Your task to perform on an android device: open app "Pinterest" (install if not already installed), go to login, and select forgot password Image 0: 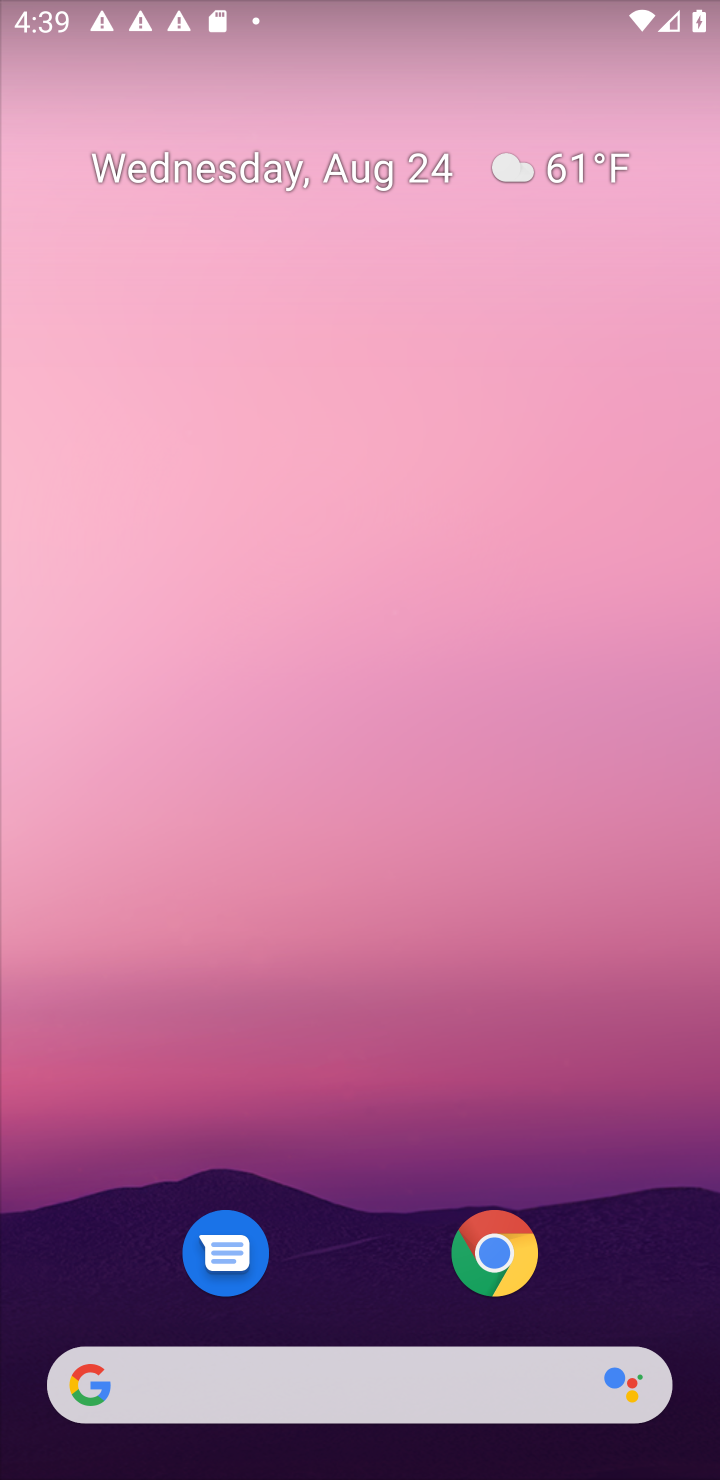
Step 0: drag from (398, 1079) to (496, 152)
Your task to perform on an android device: open app "Pinterest" (install if not already installed), go to login, and select forgot password Image 1: 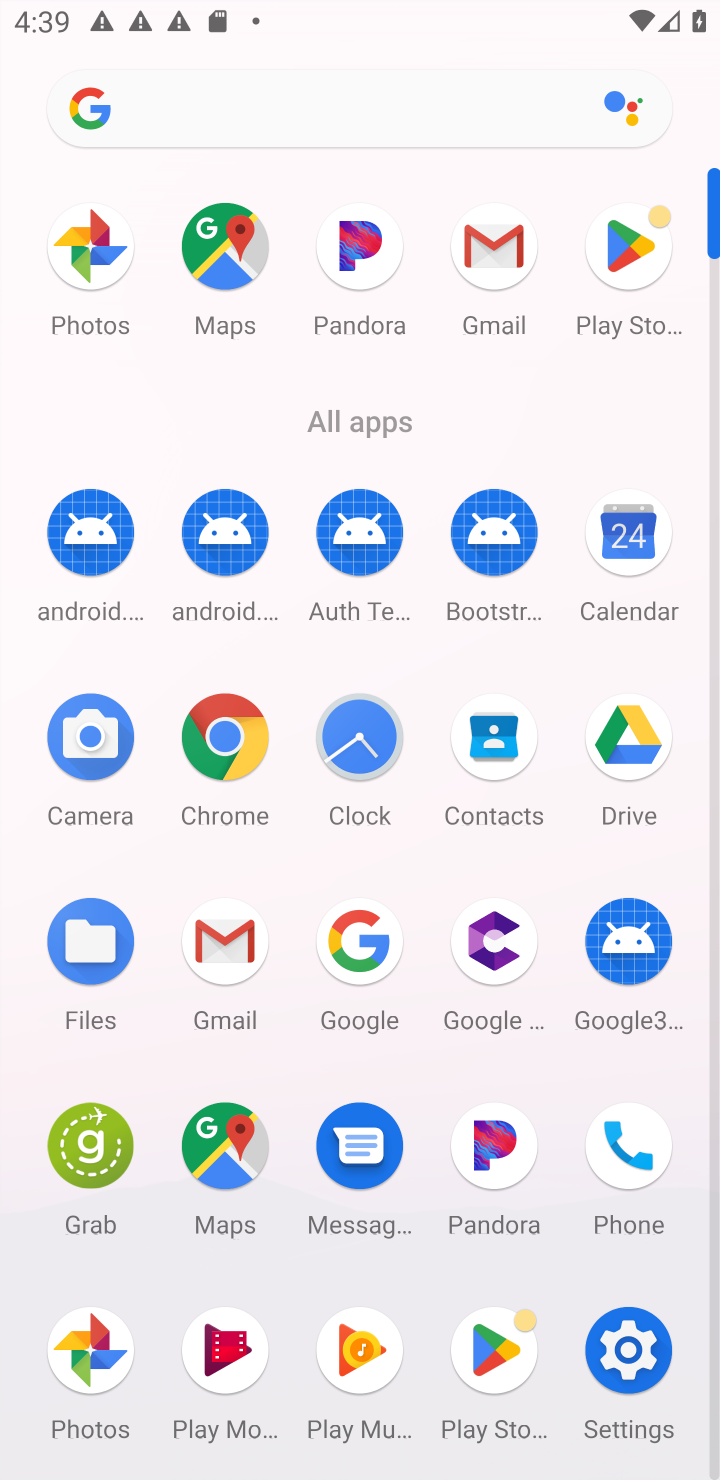
Step 1: click (632, 278)
Your task to perform on an android device: open app "Pinterest" (install if not already installed), go to login, and select forgot password Image 2: 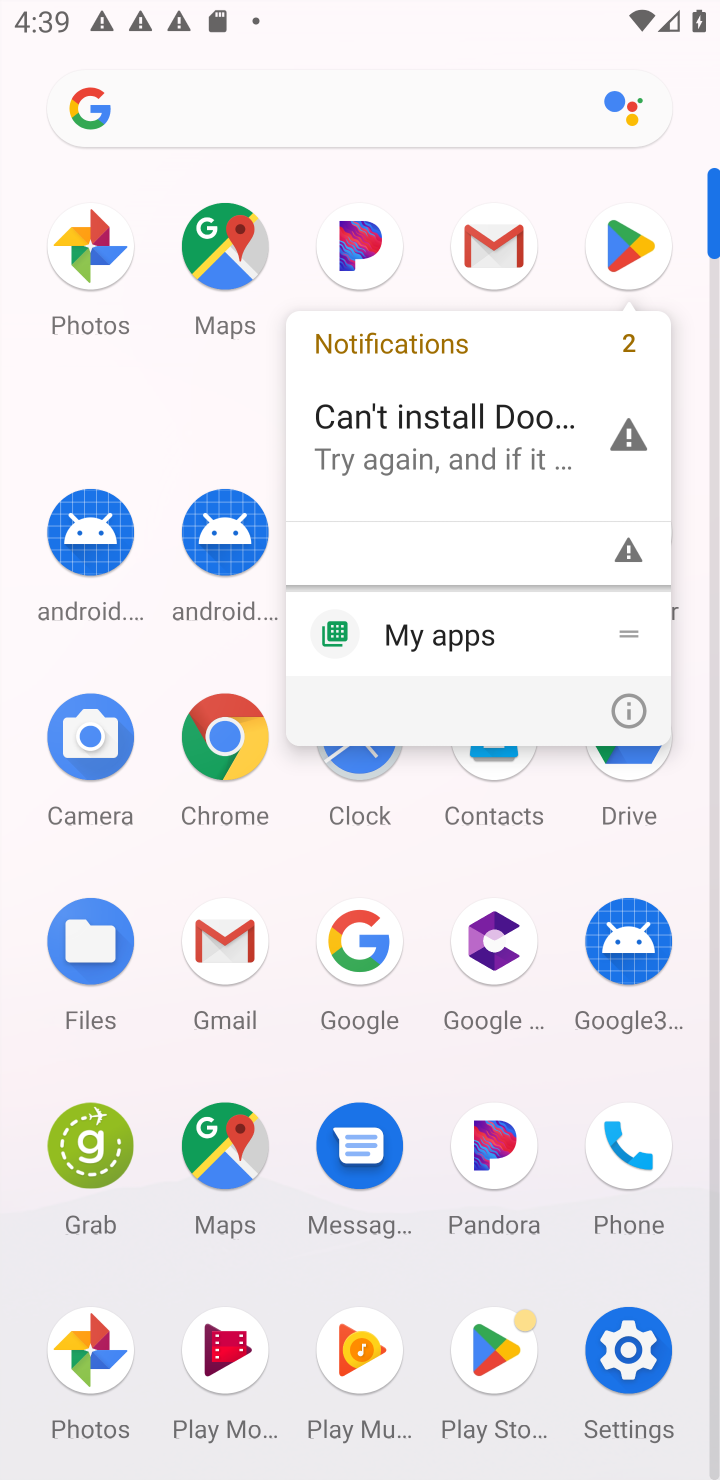
Step 2: click (634, 262)
Your task to perform on an android device: open app "Pinterest" (install if not already installed), go to login, and select forgot password Image 3: 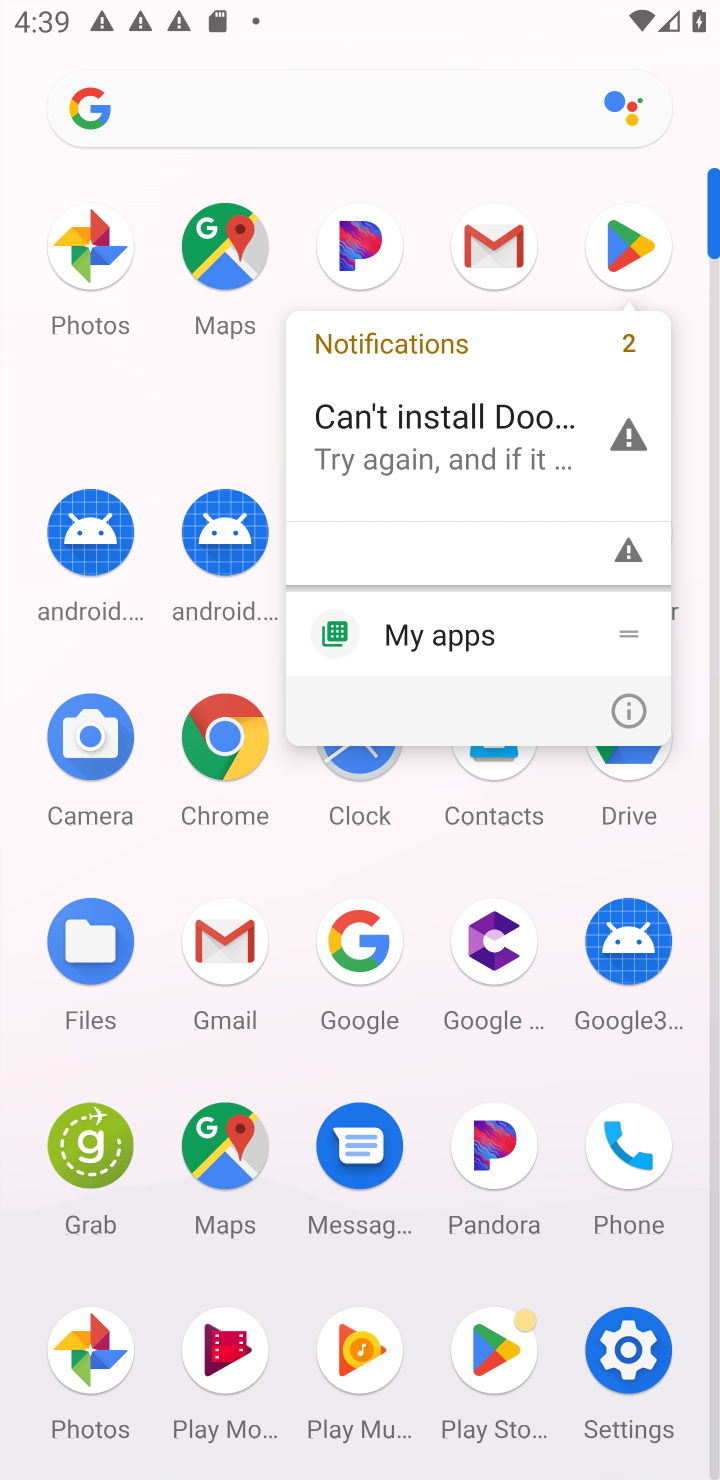
Step 3: click (632, 250)
Your task to perform on an android device: open app "Pinterest" (install if not already installed), go to login, and select forgot password Image 4: 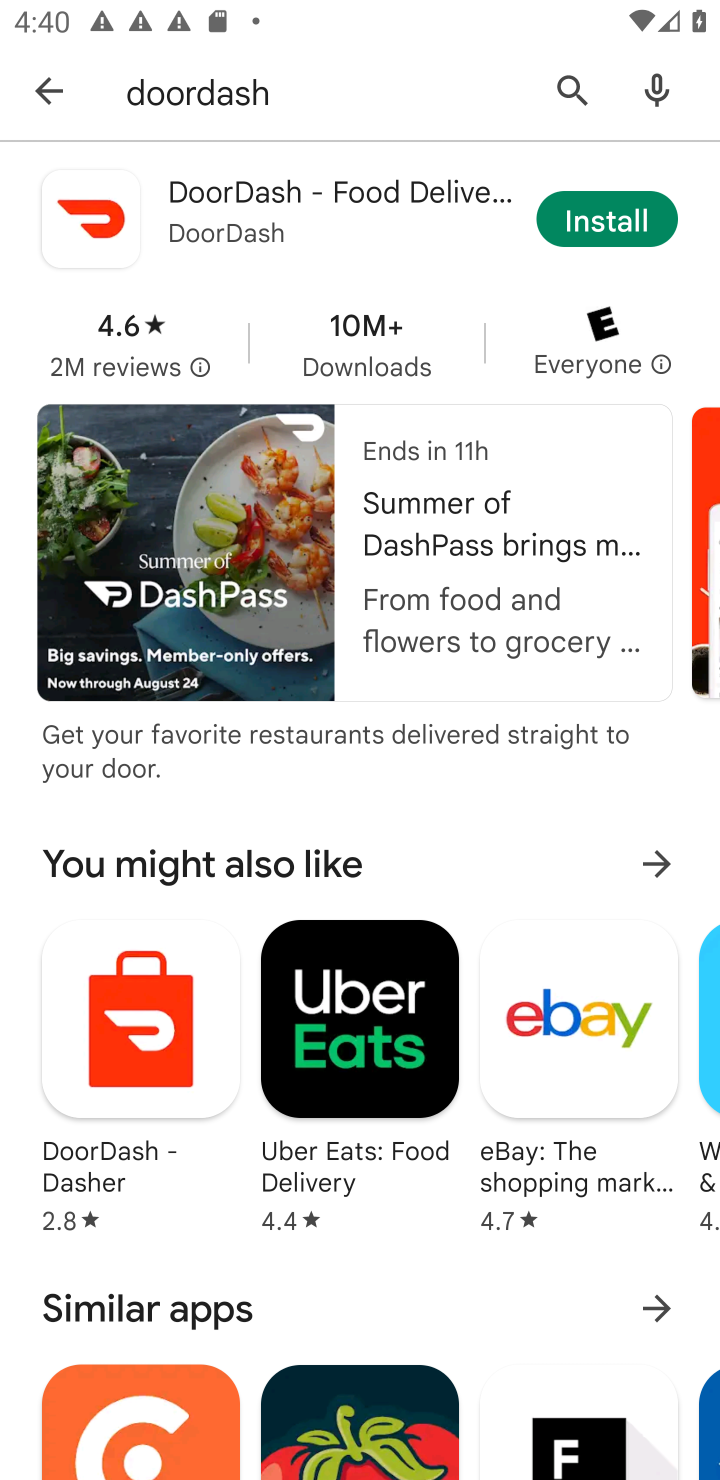
Step 4: click (563, 82)
Your task to perform on an android device: open app "Pinterest" (install if not already installed), go to login, and select forgot password Image 5: 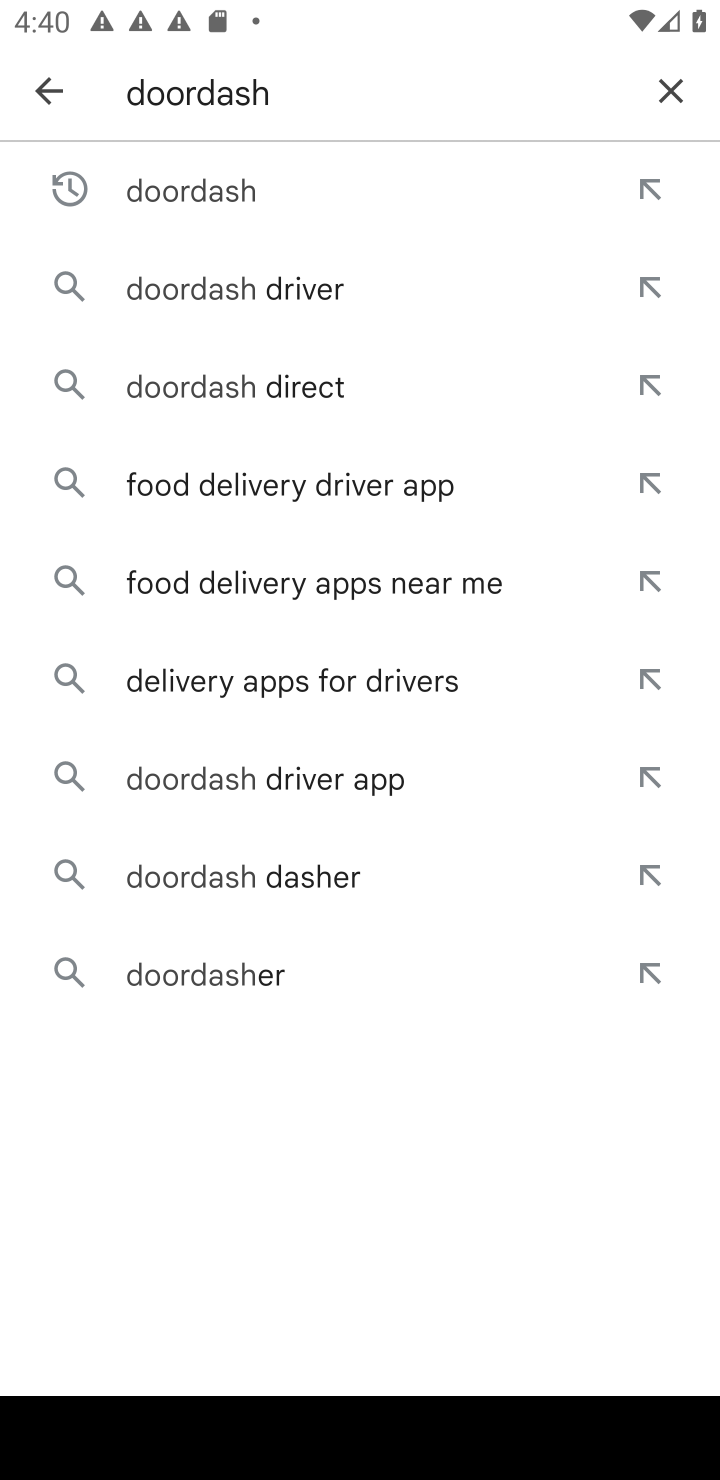
Step 5: click (661, 92)
Your task to perform on an android device: open app "Pinterest" (install if not already installed), go to login, and select forgot password Image 6: 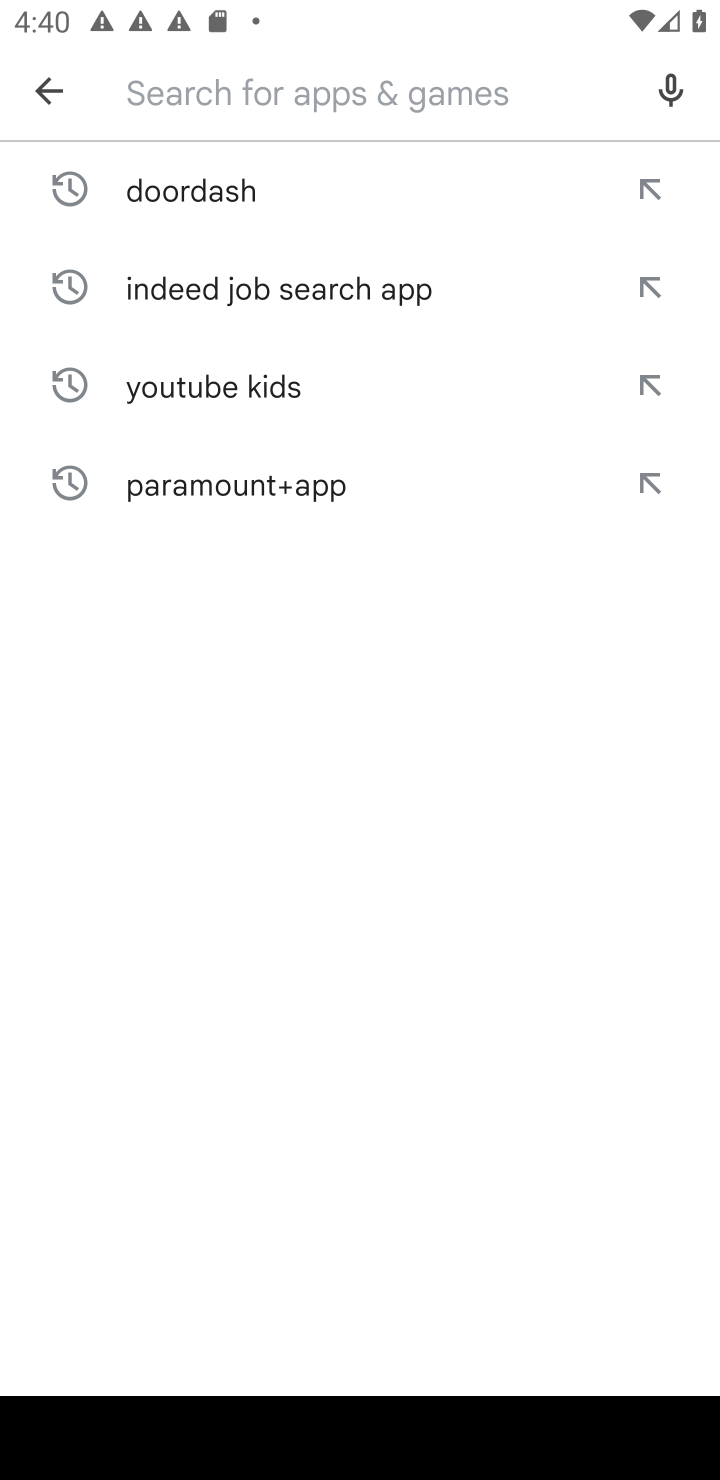
Step 6: click (299, 86)
Your task to perform on an android device: open app "Pinterest" (install if not already installed), go to login, and select forgot password Image 7: 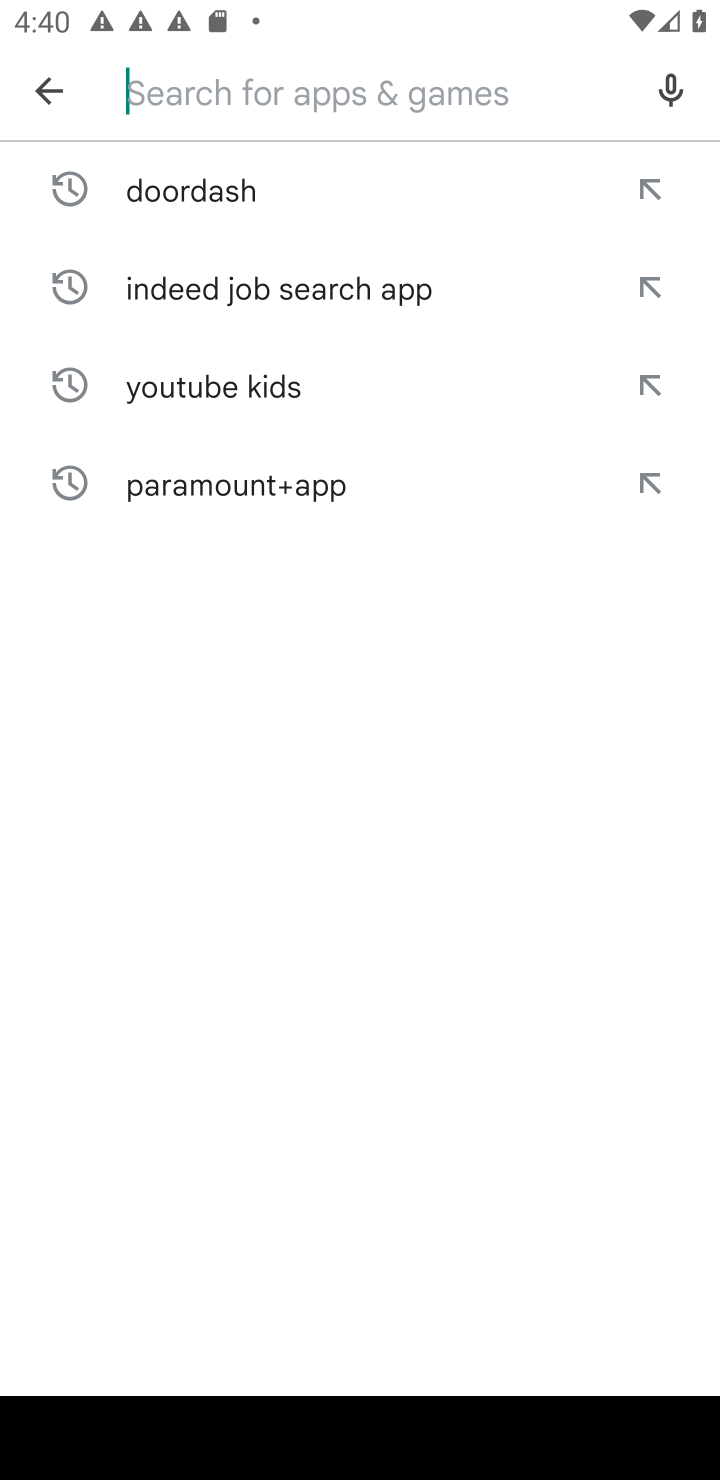
Step 7: type "pinterest"
Your task to perform on an android device: open app "Pinterest" (install if not already installed), go to login, and select forgot password Image 8: 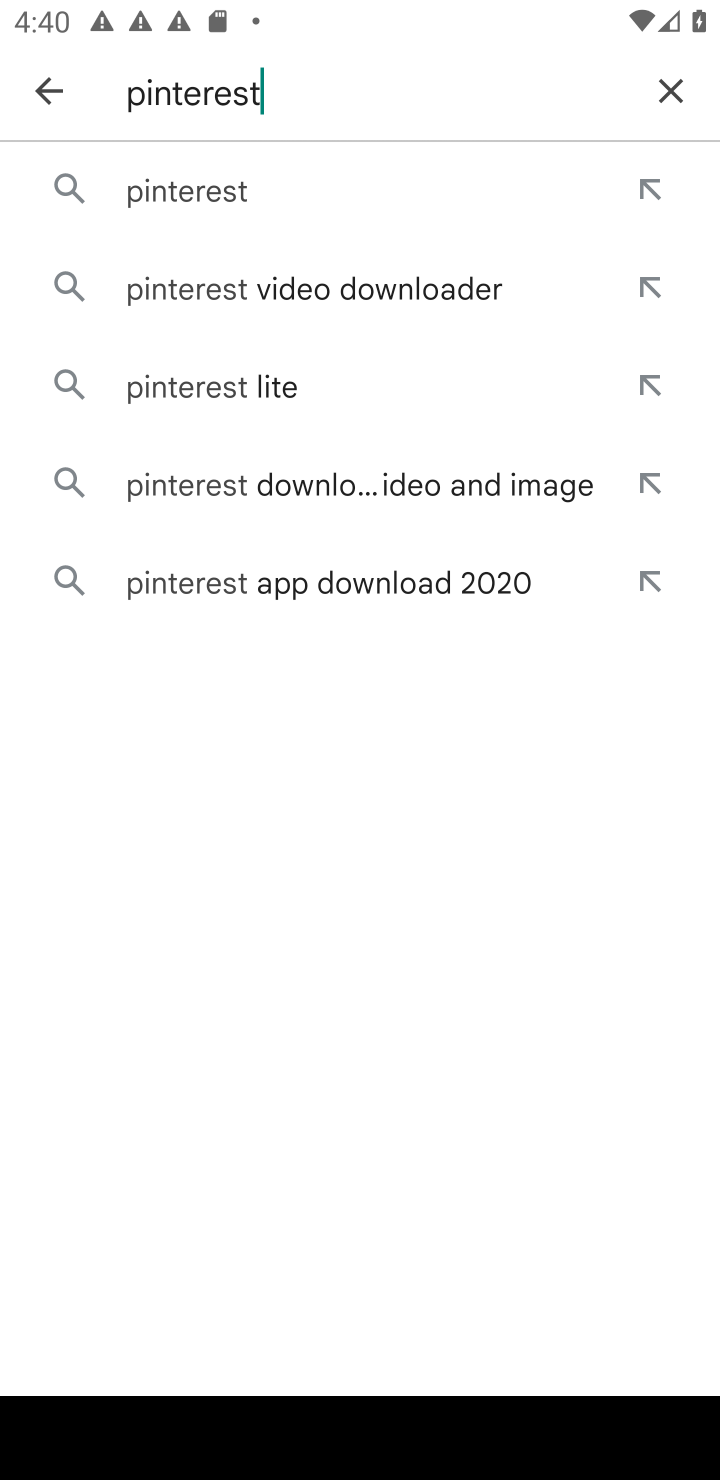
Step 8: click (178, 184)
Your task to perform on an android device: open app "Pinterest" (install if not already installed), go to login, and select forgot password Image 9: 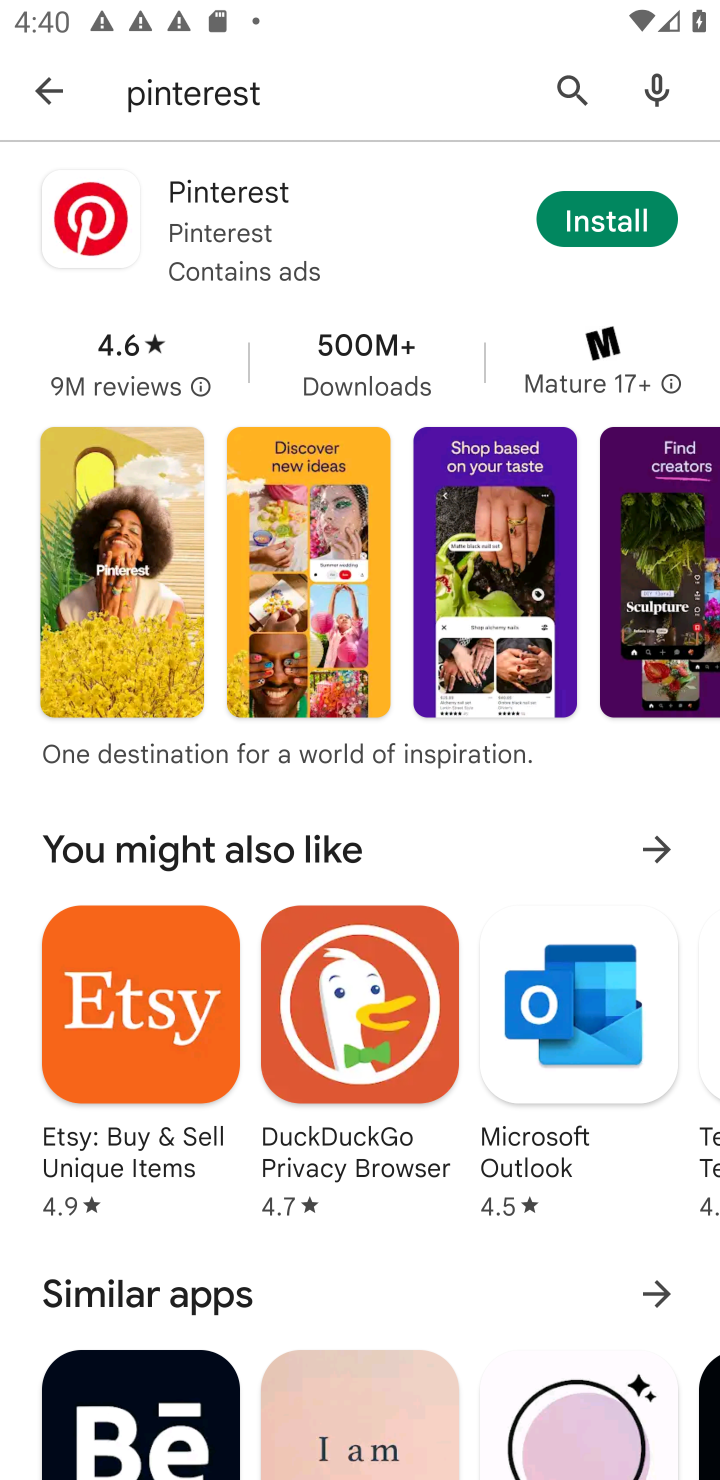
Step 9: click (599, 213)
Your task to perform on an android device: open app "Pinterest" (install if not already installed), go to login, and select forgot password Image 10: 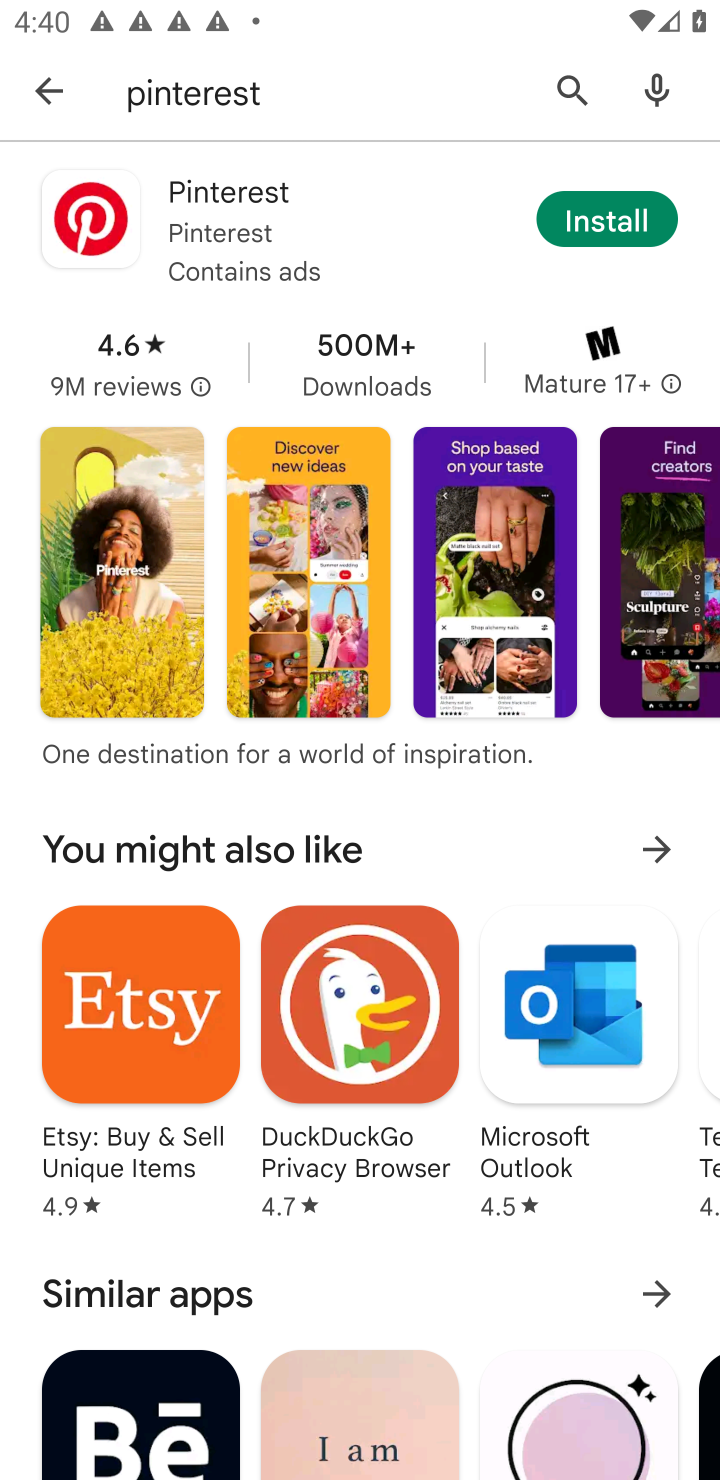
Step 10: task complete